Your task to perform on an android device: Clear all items from cart on target. Search for "logitech g pro" on target, select the first entry, and add it to the cart. Image 0: 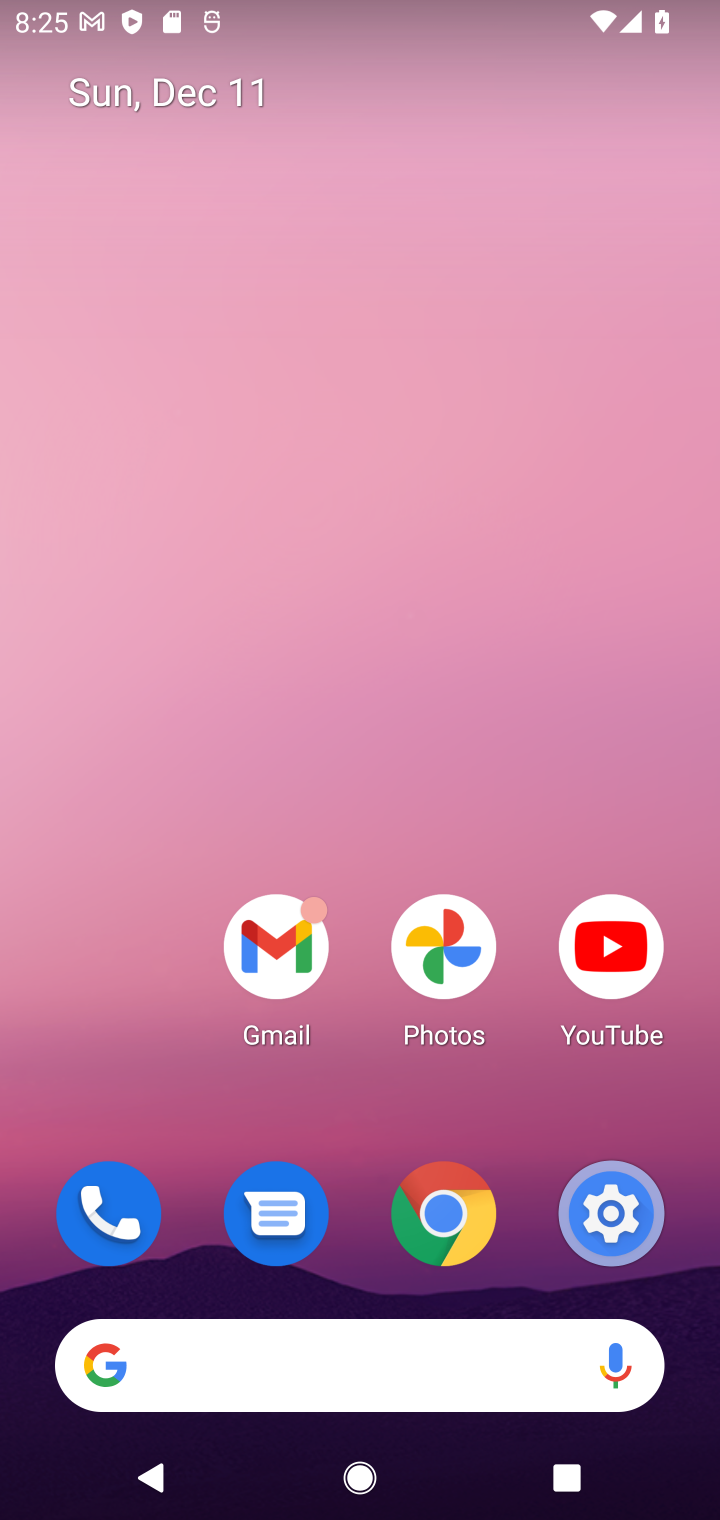
Step 0: click (356, 1406)
Your task to perform on an android device: Clear all items from cart on target. Search for "logitech g pro" on target, select the first entry, and add it to the cart. Image 1: 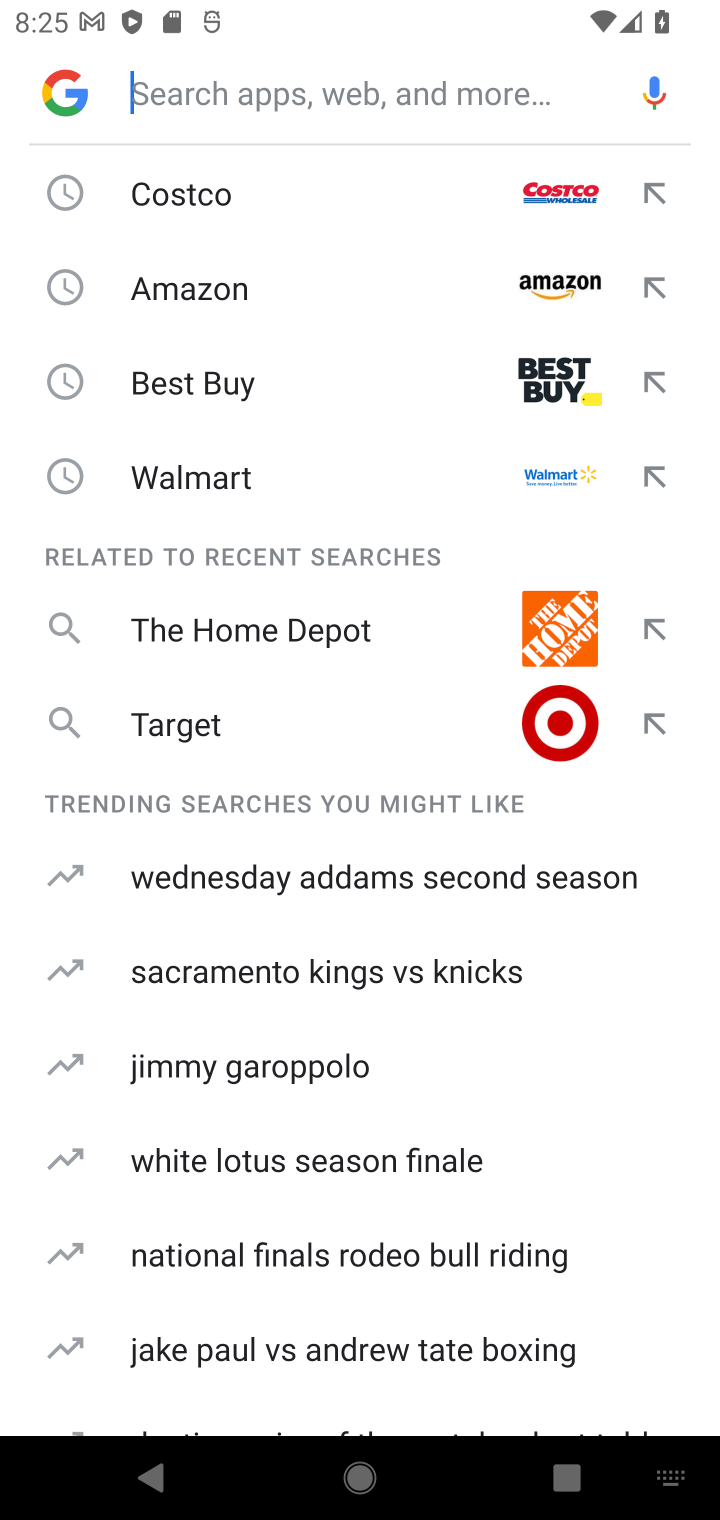
Step 1: click (346, 753)
Your task to perform on an android device: Clear all items from cart on target. Search for "logitech g pro" on target, select the first entry, and add it to the cart. Image 2: 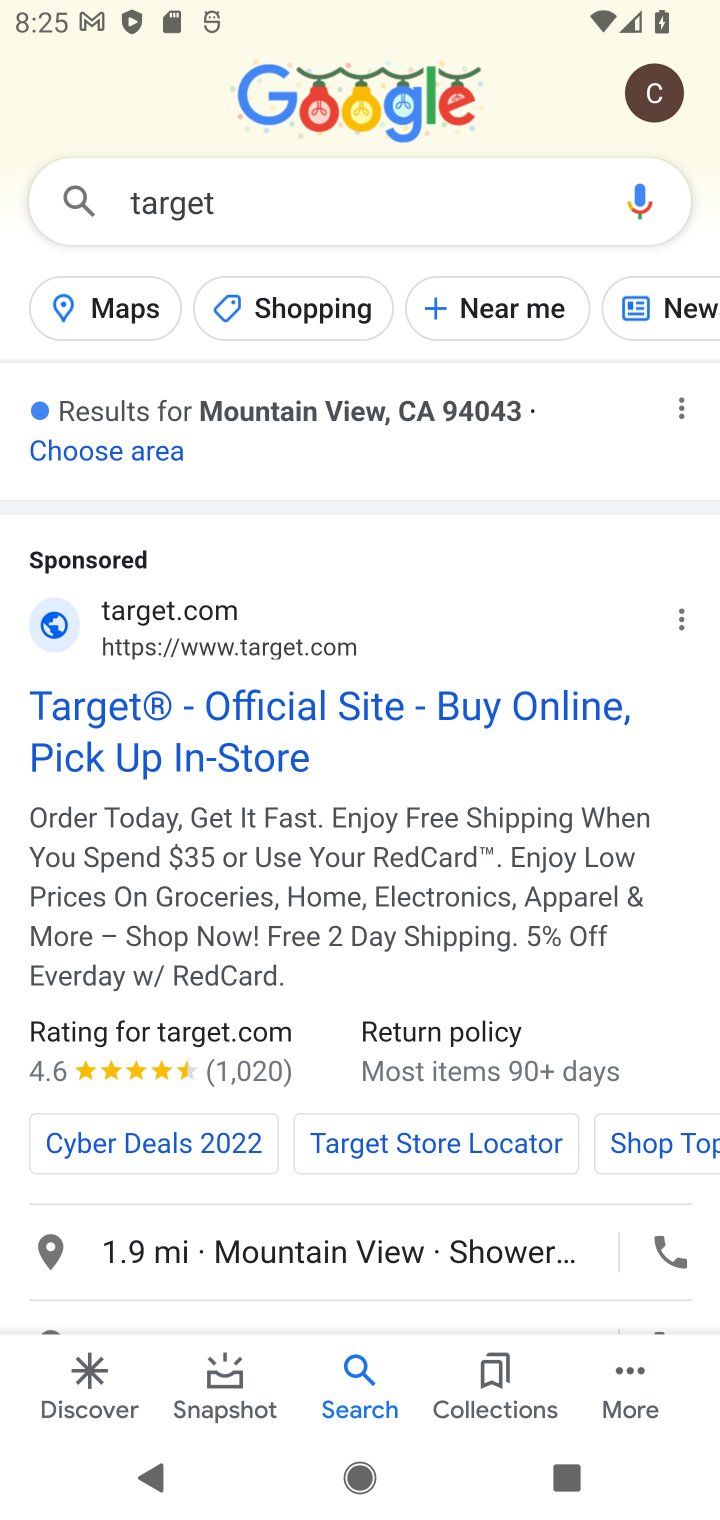
Step 2: click (346, 753)
Your task to perform on an android device: Clear all items from cart on target. Search for "logitech g pro" on target, select the first entry, and add it to the cart. Image 3: 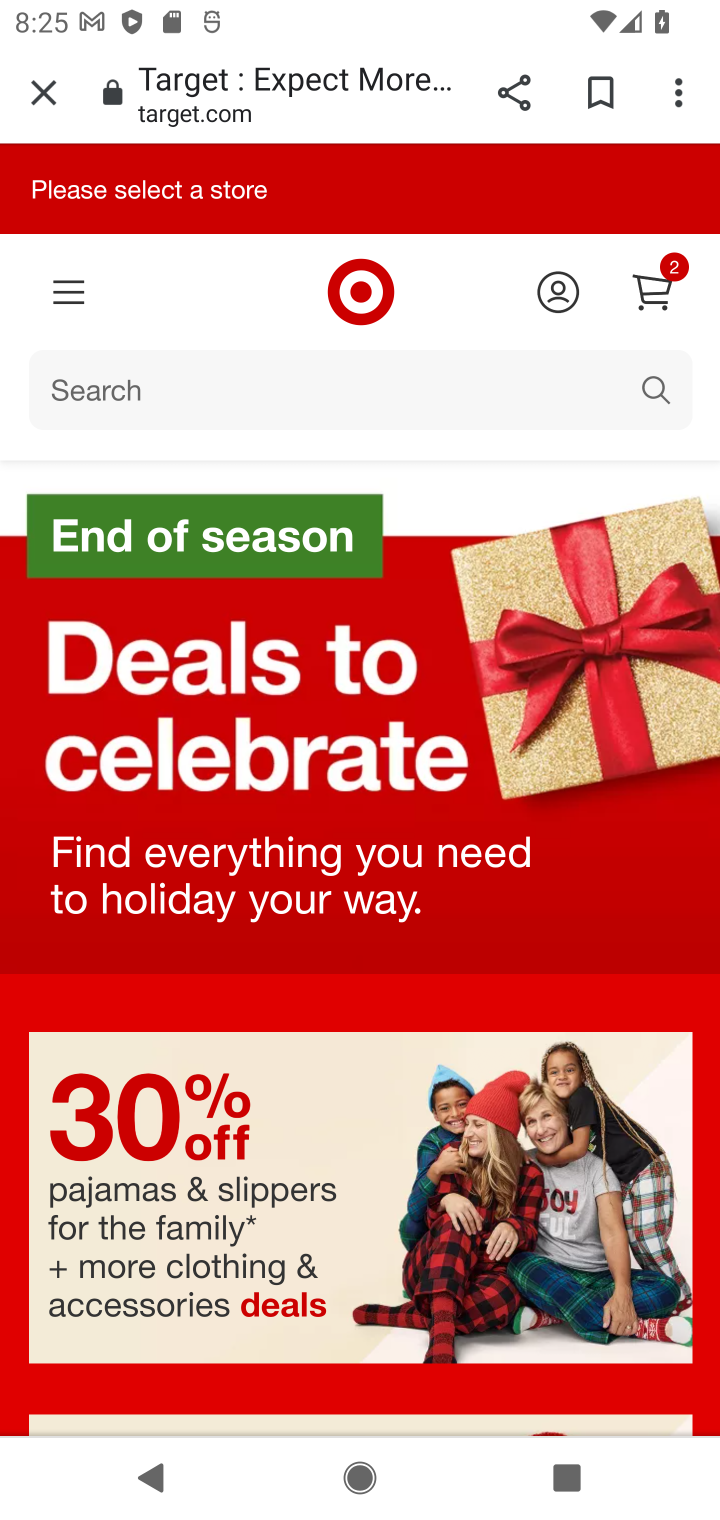
Step 3: click (273, 410)
Your task to perform on an android device: Clear all items from cart on target. Search for "logitech g pro" on target, select the first entry, and add it to the cart. Image 4: 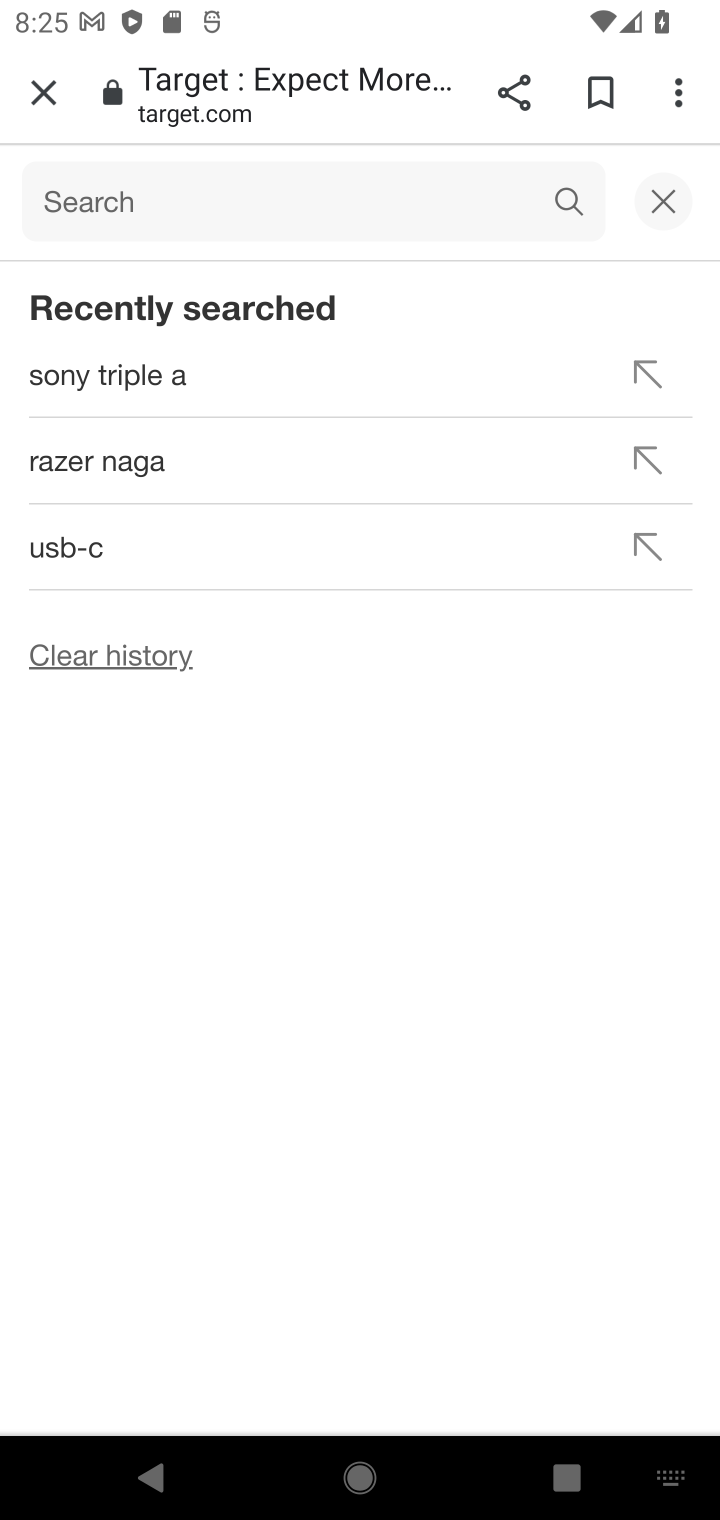
Step 4: type "logitech"
Your task to perform on an android device: Clear all items from cart on target. Search for "logitech g pro" on target, select the first entry, and add it to the cart. Image 5: 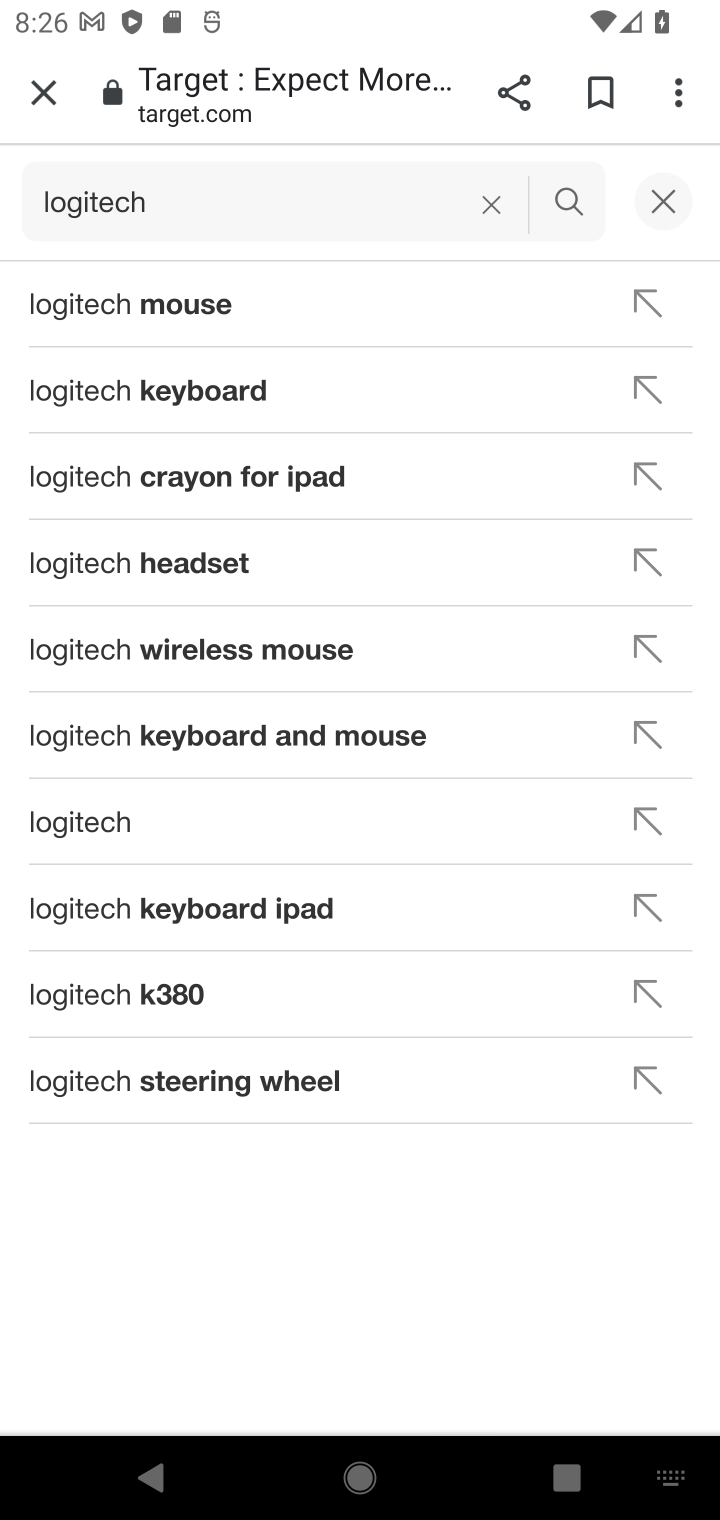
Step 5: type " g pro"
Your task to perform on an android device: Clear all items from cart on target. Search for "logitech g pro" on target, select the first entry, and add it to the cart. Image 6: 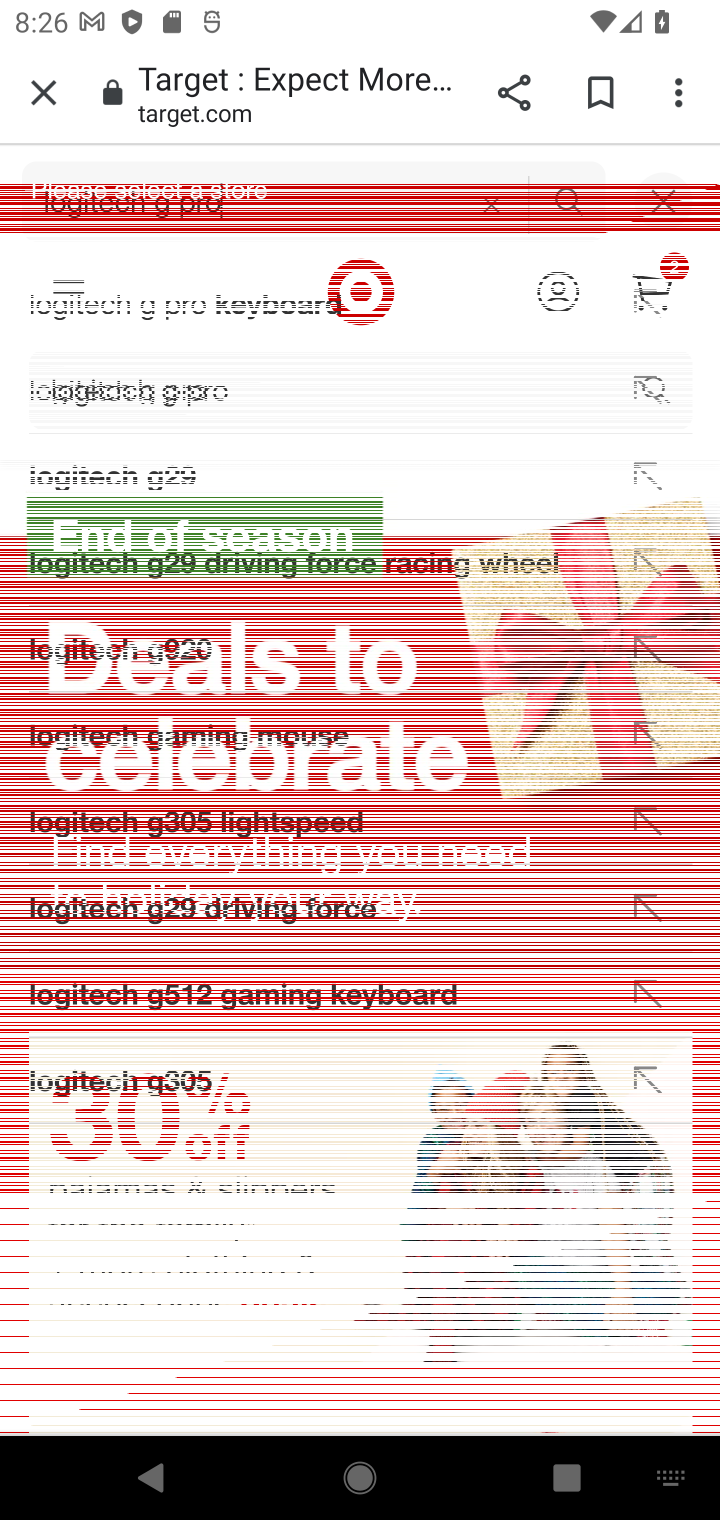
Step 6: click (138, 381)
Your task to perform on an android device: Clear all items from cart on target. Search for "logitech g pro" on target, select the first entry, and add it to the cart. Image 7: 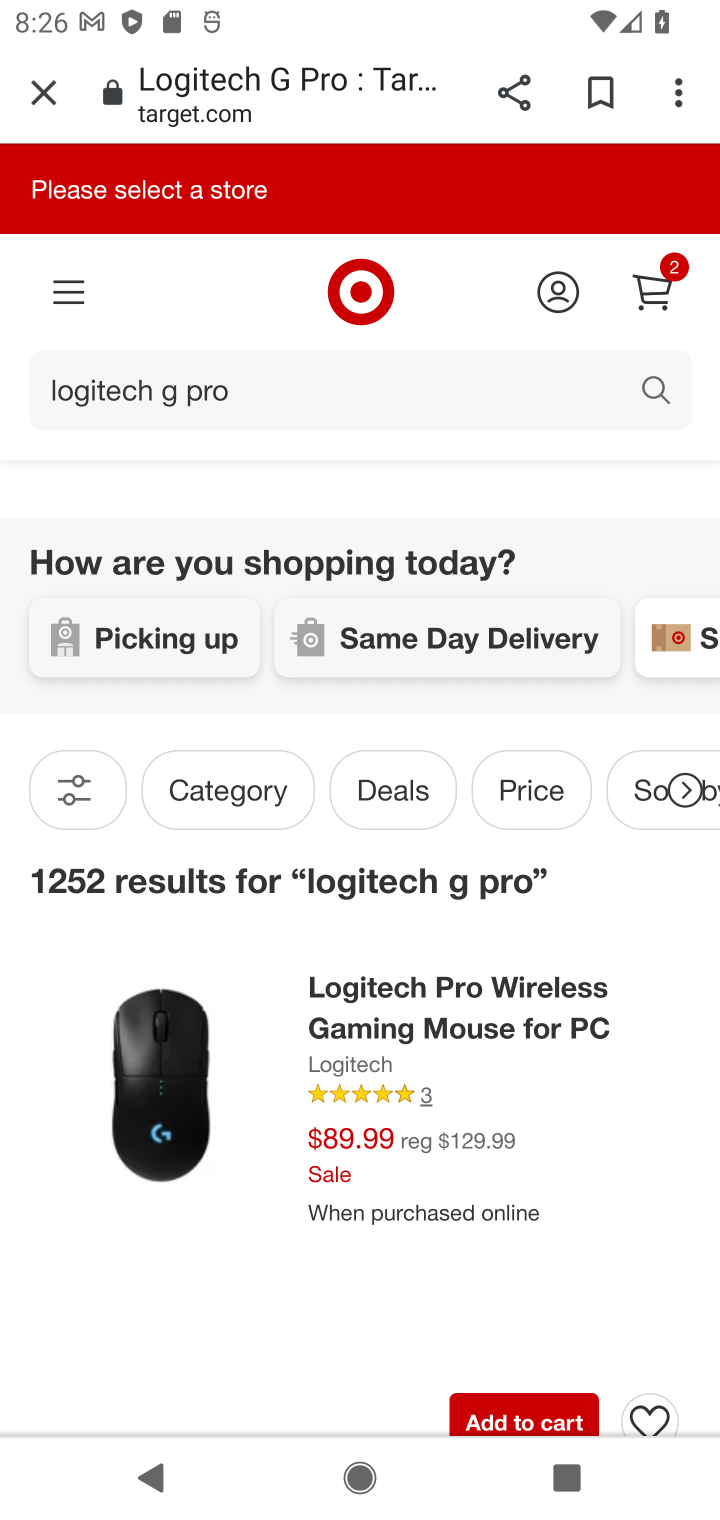
Step 7: click (531, 1414)
Your task to perform on an android device: Clear all items from cart on target. Search for "logitech g pro" on target, select the first entry, and add it to the cart. Image 8: 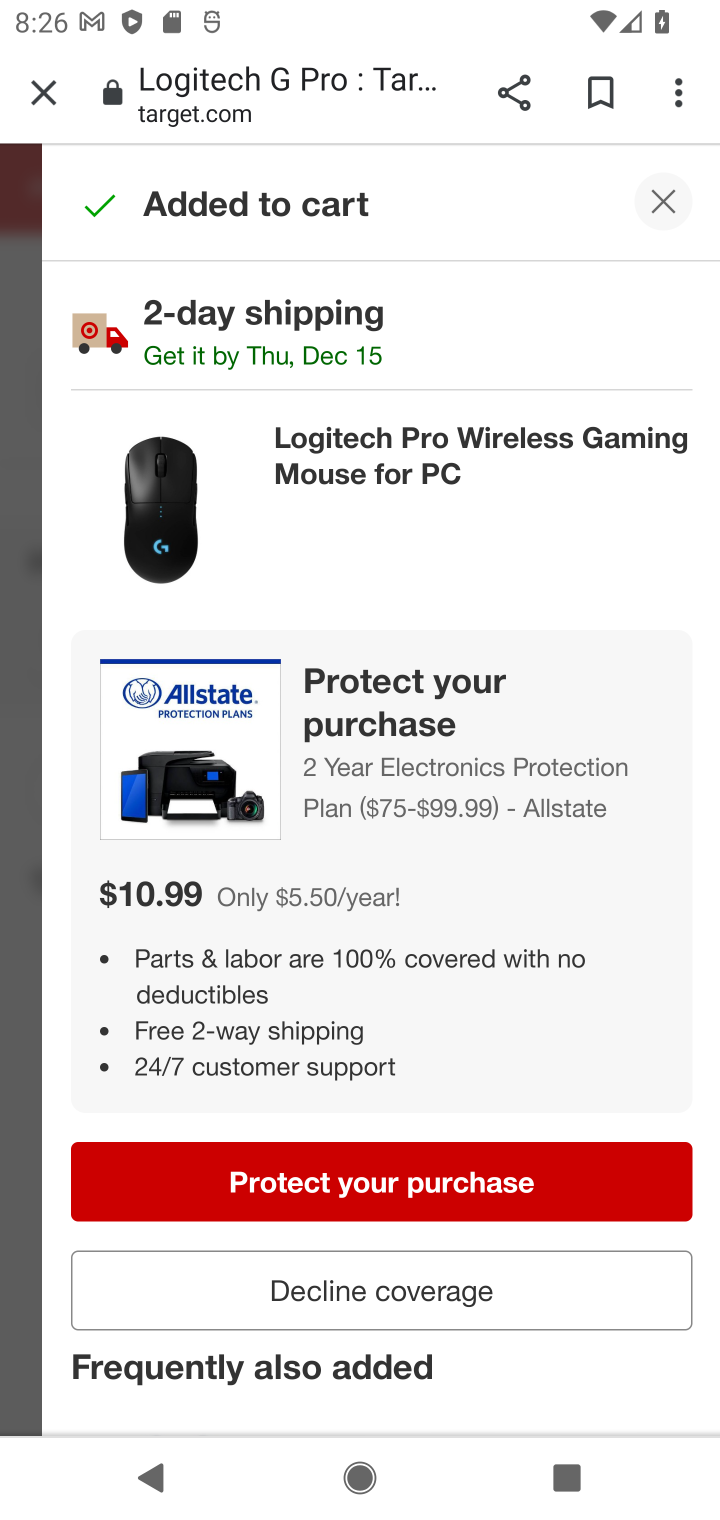
Step 8: task complete